Your task to perform on an android device: turn off location Image 0: 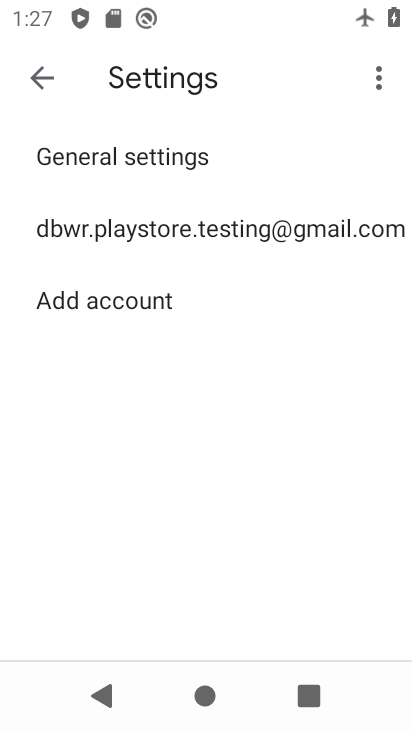
Step 0: press home button
Your task to perform on an android device: turn off location Image 1: 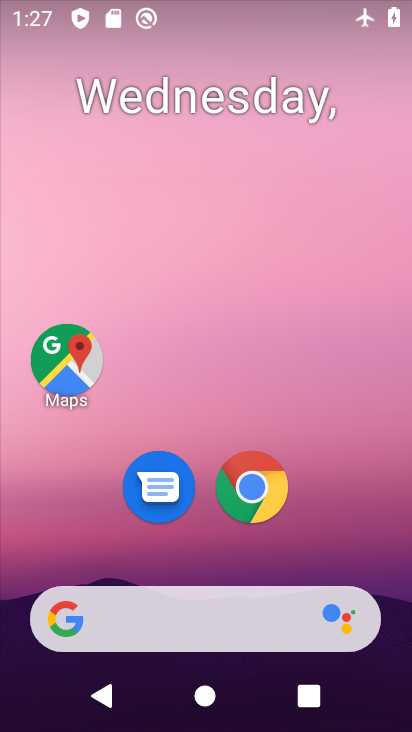
Step 1: drag from (337, 477) to (283, 65)
Your task to perform on an android device: turn off location Image 2: 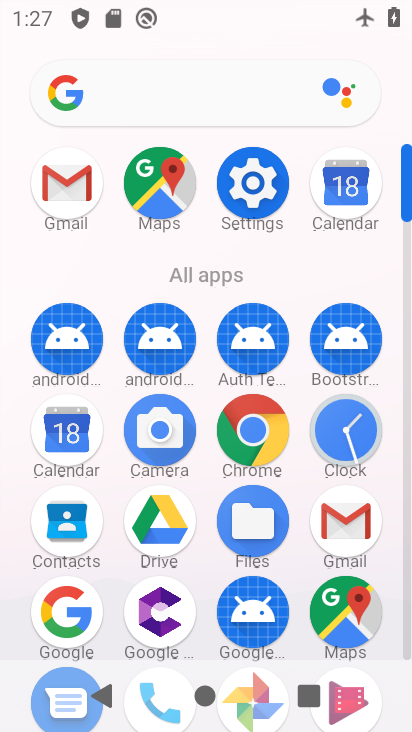
Step 2: click (255, 178)
Your task to perform on an android device: turn off location Image 3: 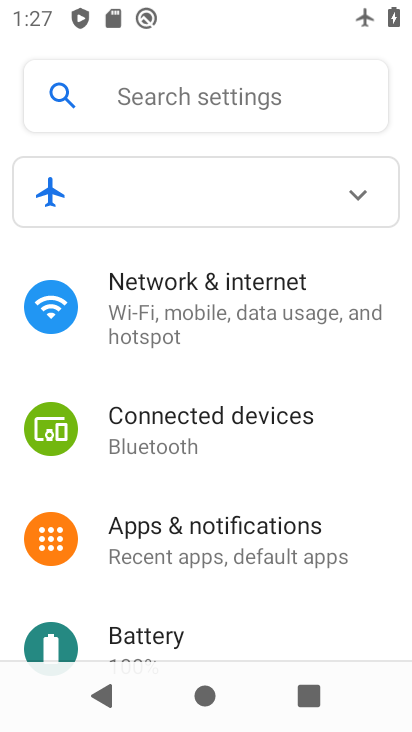
Step 3: drag from (196, 574) to (197, 203)
Your task to perform on an android device: turn off location Image 4: 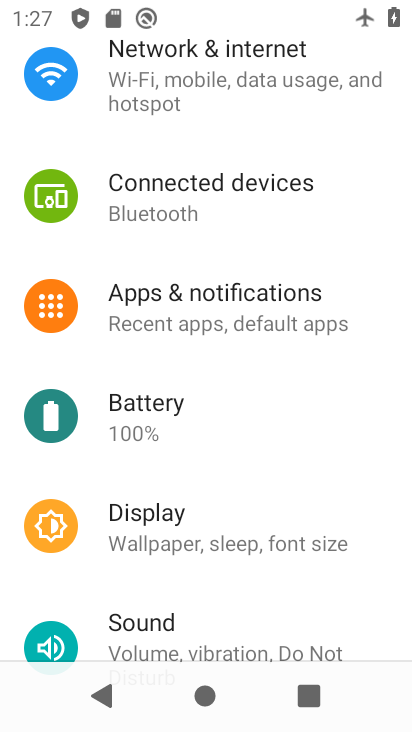
Step 4: drag from (201, 593) to (201, 246)
Your task to perform on an android device: turn off location Image 5: 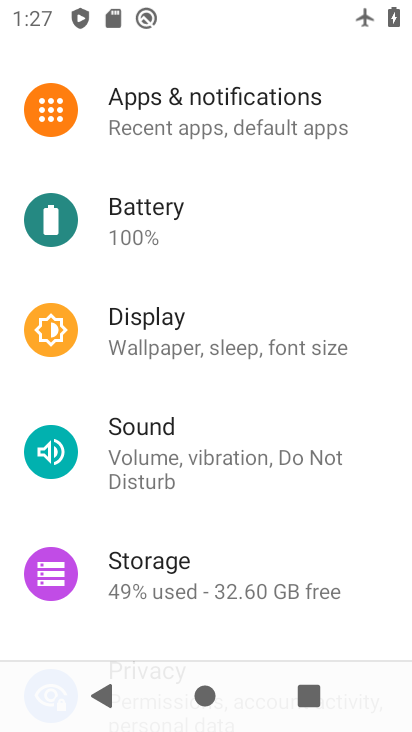
Step 5: drag from (179, 472) to (178, 146)
Your task to perform on an android device: turn off location Image 6: 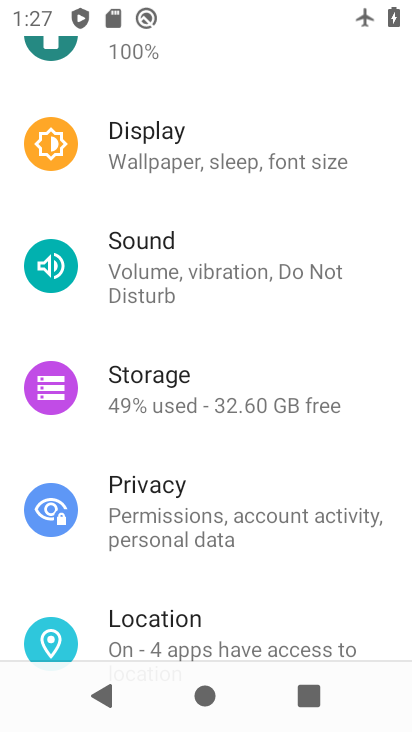
Step 6: click (131, 615)
Your task to perform on an android device: turn off location Image 7: 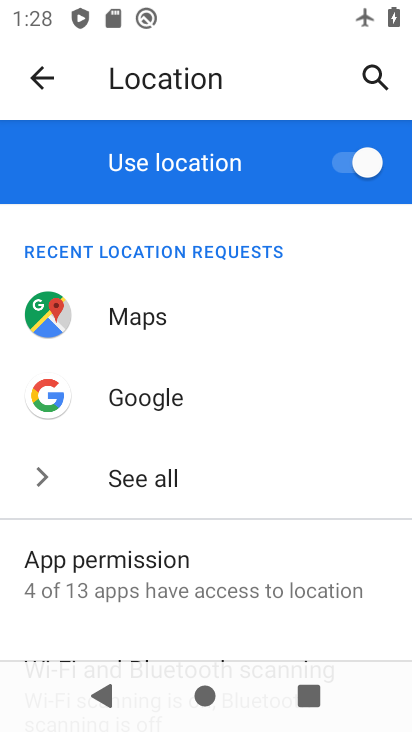
Step 7: click (363, 167)
Your task to perform on an android device: turn off location Image 8: 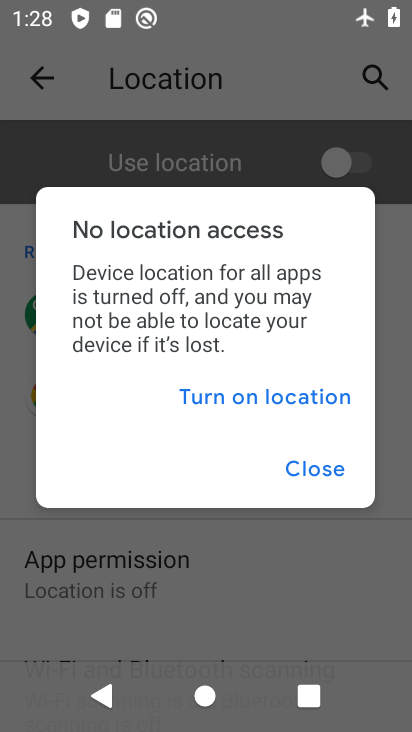
Step 8: task complete